Your task to perform on an android device: Open internet settings Image 0: 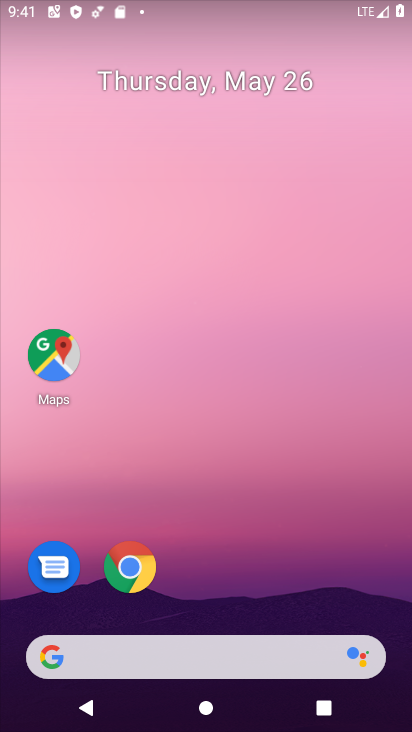
Step 0: drag from (256, 651) to (306, 183)
Your task to perform on an android device: Open internet settings Image 1: 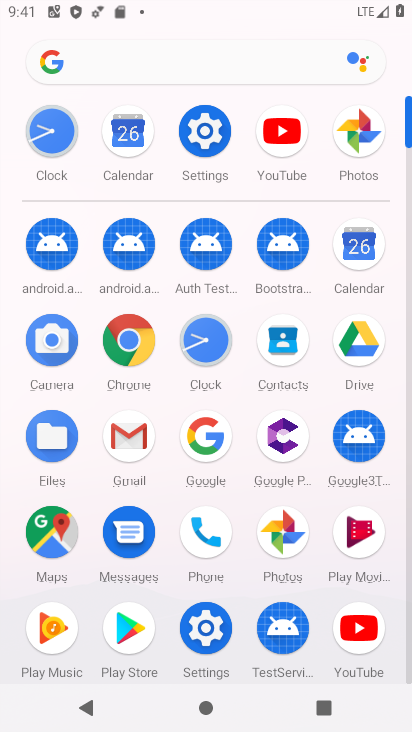
Step 1: click (207, 136)
Your task to perform on an android device: Open internet settings Image 2: 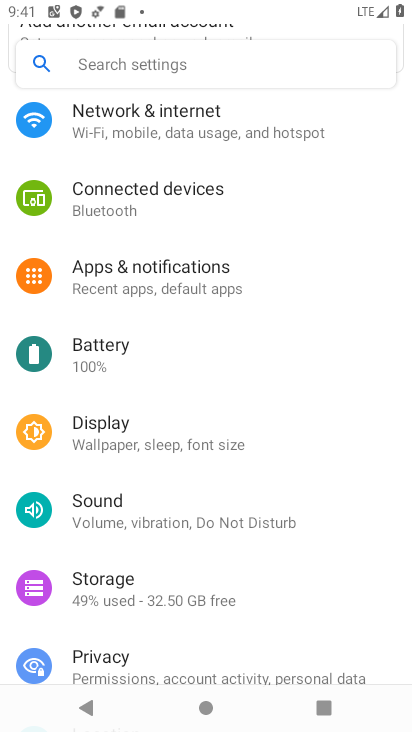
Step 2: click (274, 123)
Your task to perform on an android device: Open internet settings Image 3: 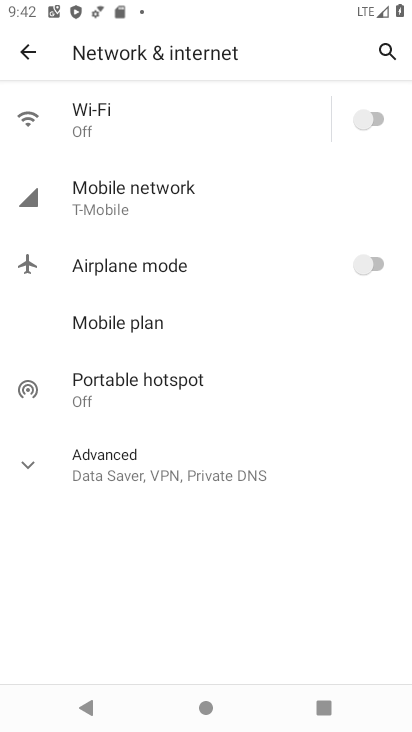
Step 3: task complete